Your task to perform on an android device: Toggle the flashlight Image 0: 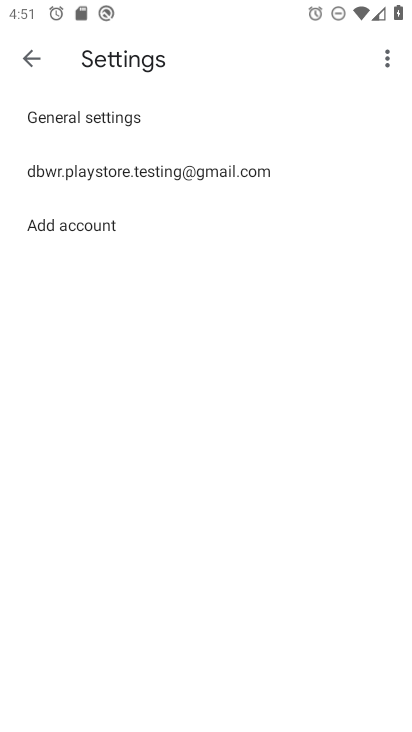
Step 0: press back button
Your task to perform on an android device: Toggle the flashlight Image 1: 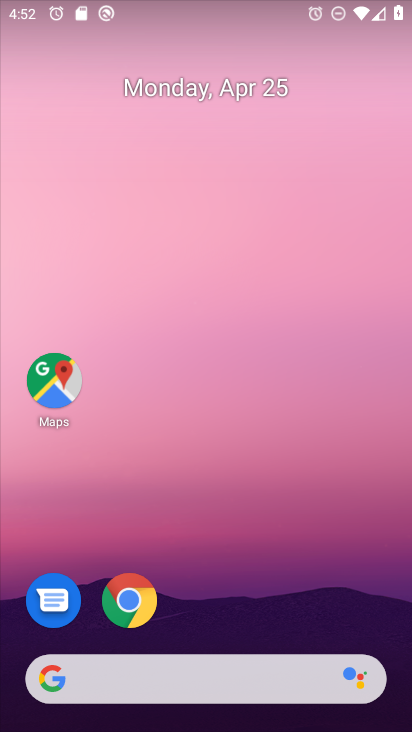
Step 1: drag from (251, 450) to (261, 0)
Your task to perform on an android device: Toggle the flashlight Image 2: 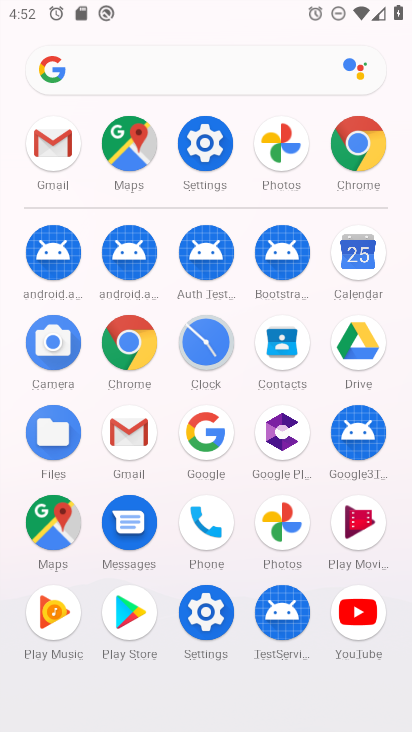
Step 2: click (198, 139)
Your task to perform on an android device: Toggle the flashlight Image 3: 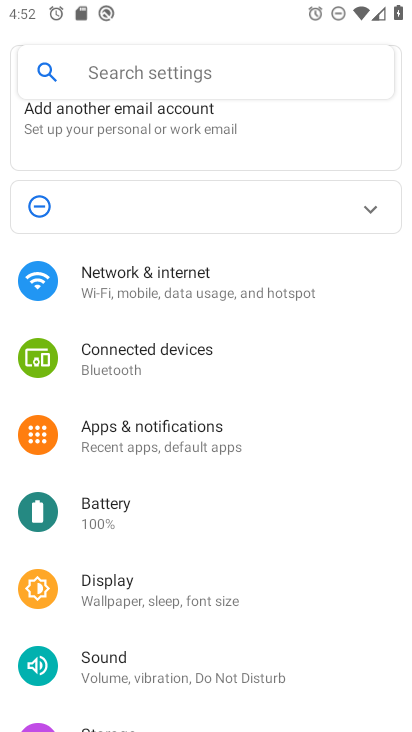
Step 3: click (209, 285)
Your task to perform on an android device: Toggle the flashlight Image 4: 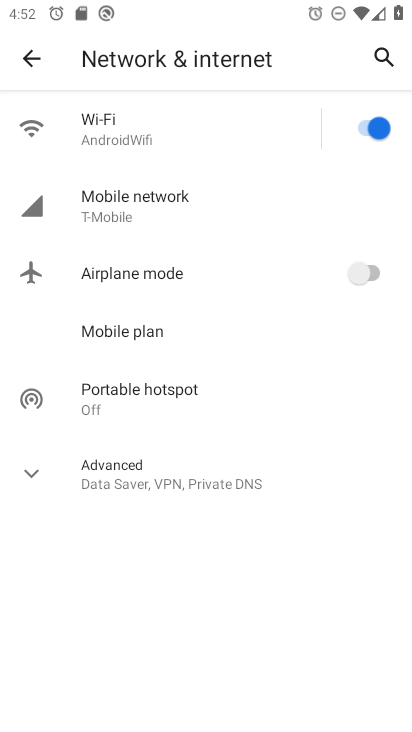
Step 4: click (36, 457)
Your task to perform on an android device: Toggle the flashlight Image 5: 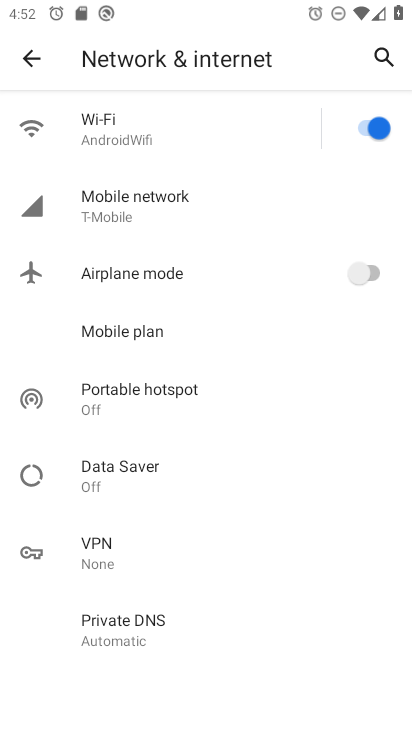
Step 5: drag from (170, 591) to (197, 206)
Your task to perform on an android device: Toggle the flashlight Image 6: 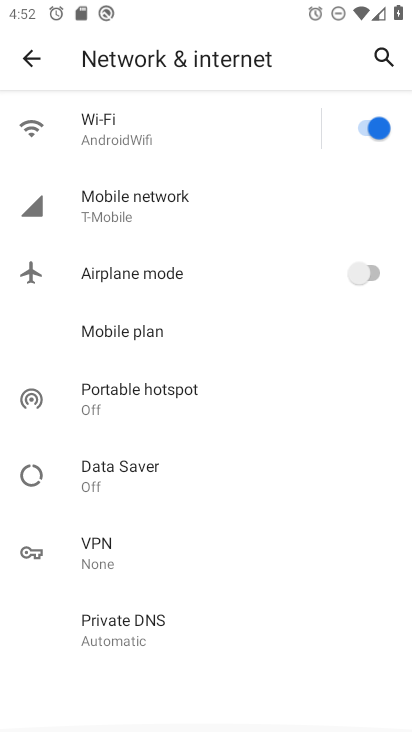
Step 6: click (38, 59)
Your task to perform on an android device: Toggle the flashlight Image 7: 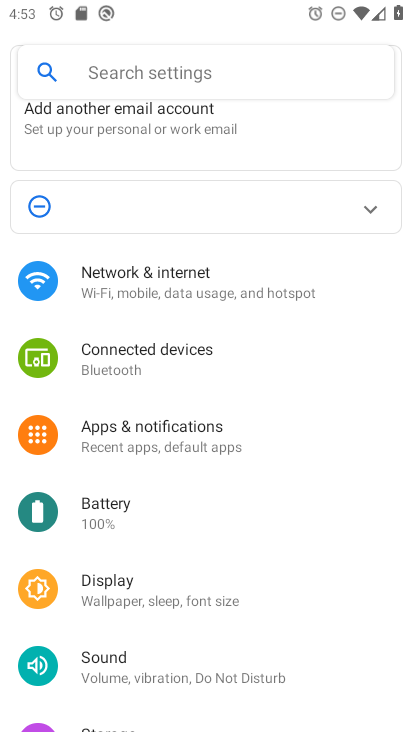
Step 7: drag from (188, 457) to (234, 130)
Your task to perform on an android device: Toggle the flashlight Image 8: 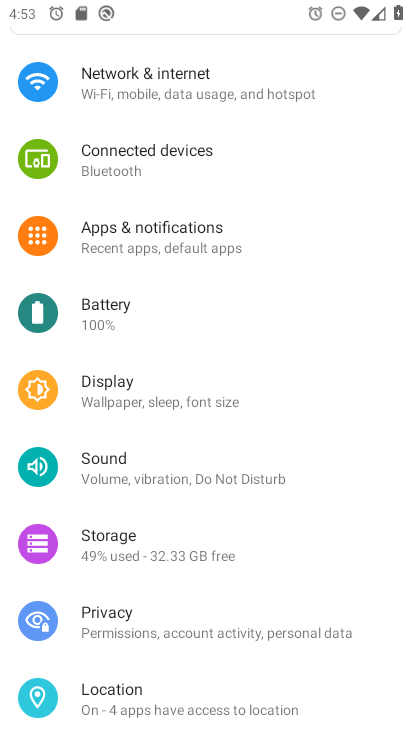
Step 8: click (208, 230)
Your task to perform on an android device: Toggle the flashlight Image 9: 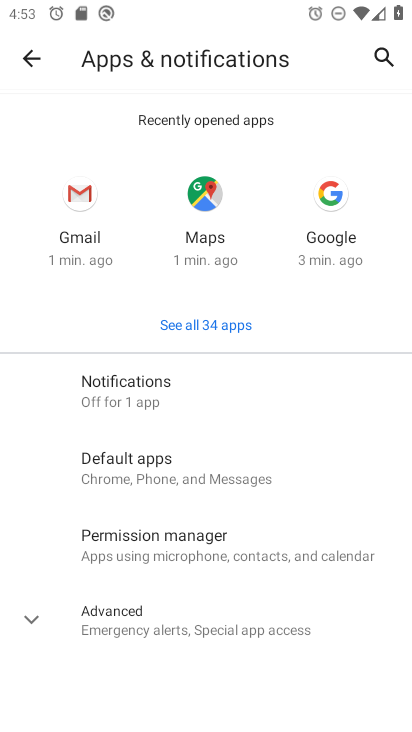
Step 9: drag from (236, 478) to (270, 181)
Your task to perform on an android device: Toggle the flashlight Image 10: 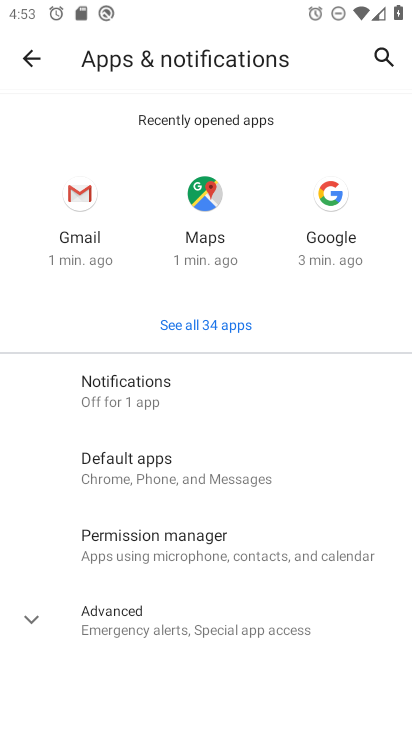
Step 10: click (38, 606)
Your task to perform on an android device: Toggle the flashlight Image 11: 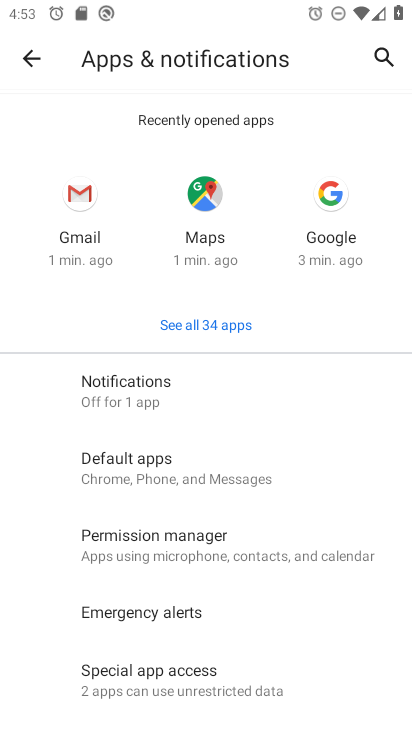
Step 11: drag from (235, 592) to (311, 202)
Your task to perform on an android device: Toggle the flashlight Image 12: 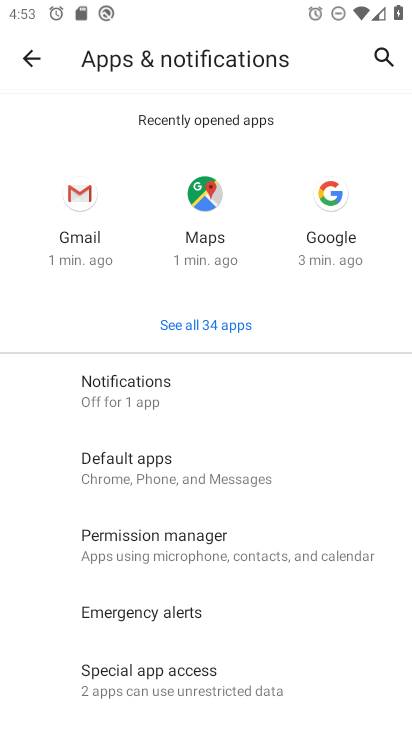
Step 12: click (34, 56)
Your task to perform on an android device: Toggle the flashlight Image 13: 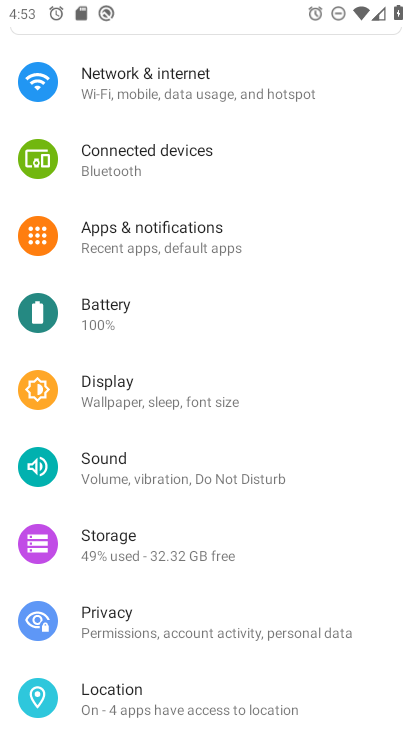
Step 13: task complete